Your task to perform on an android device: Add dell xps to the cart on target, then select checkout. Image 0: 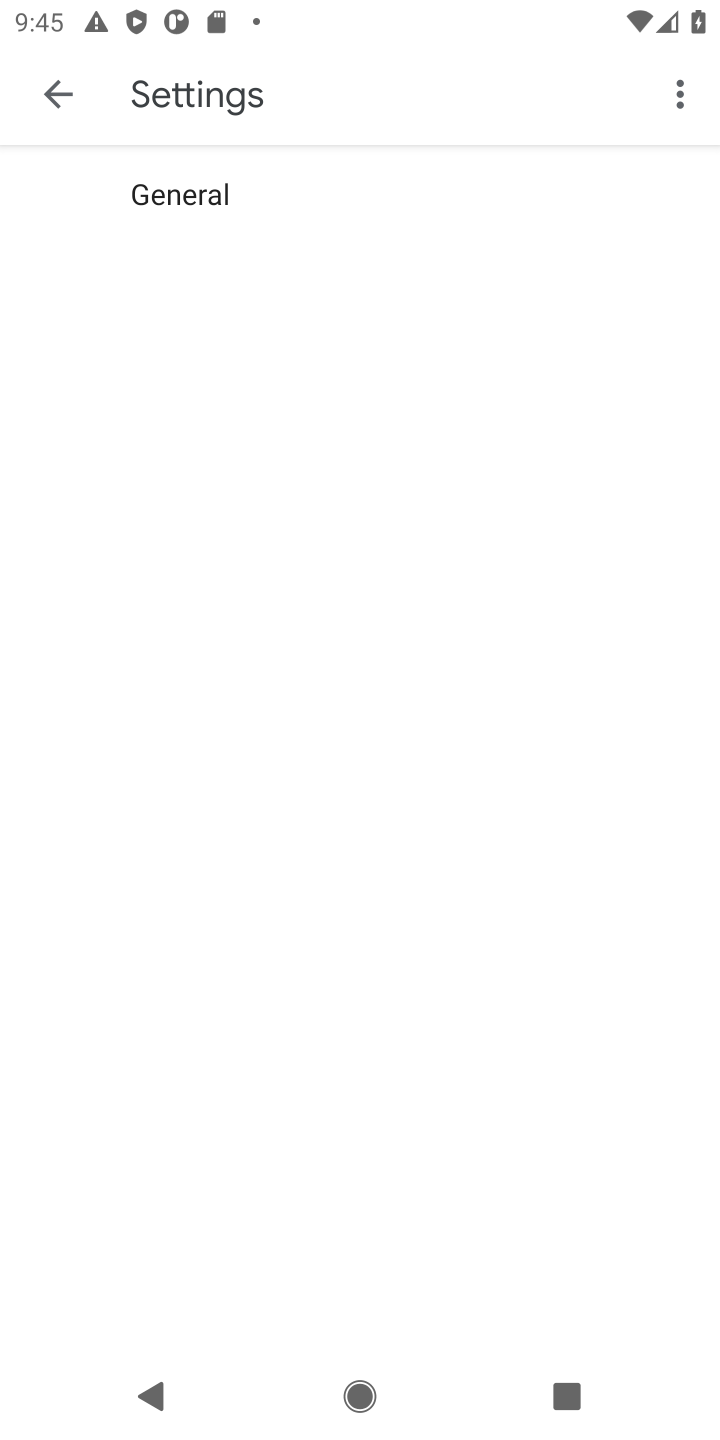
Step 0: press home button
Your task to perform on an android device: Add dell xps to the cart on target, then select checkout. Image 1: 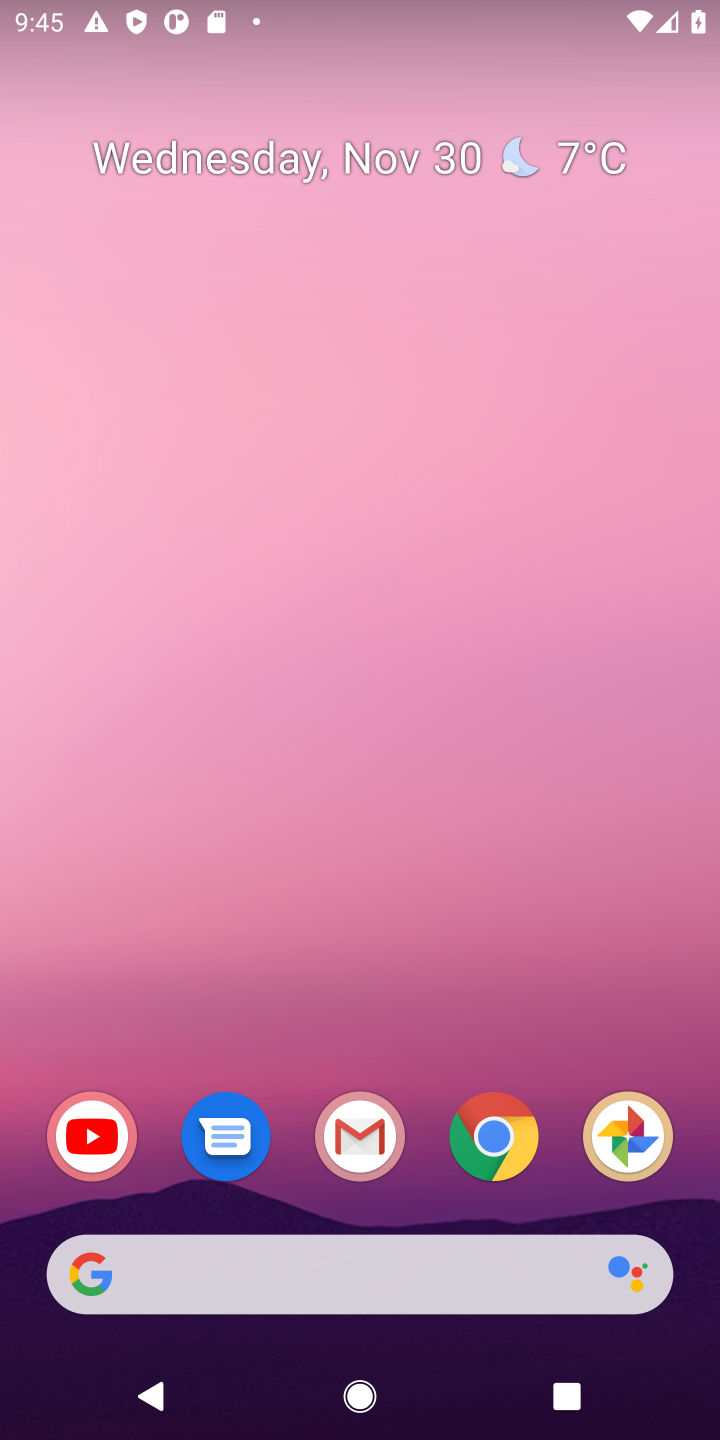
Step 1: click (491, 1129)
Your task to perform on an android device: Add dell xps to the cart on target, then select checkout. Image 2: 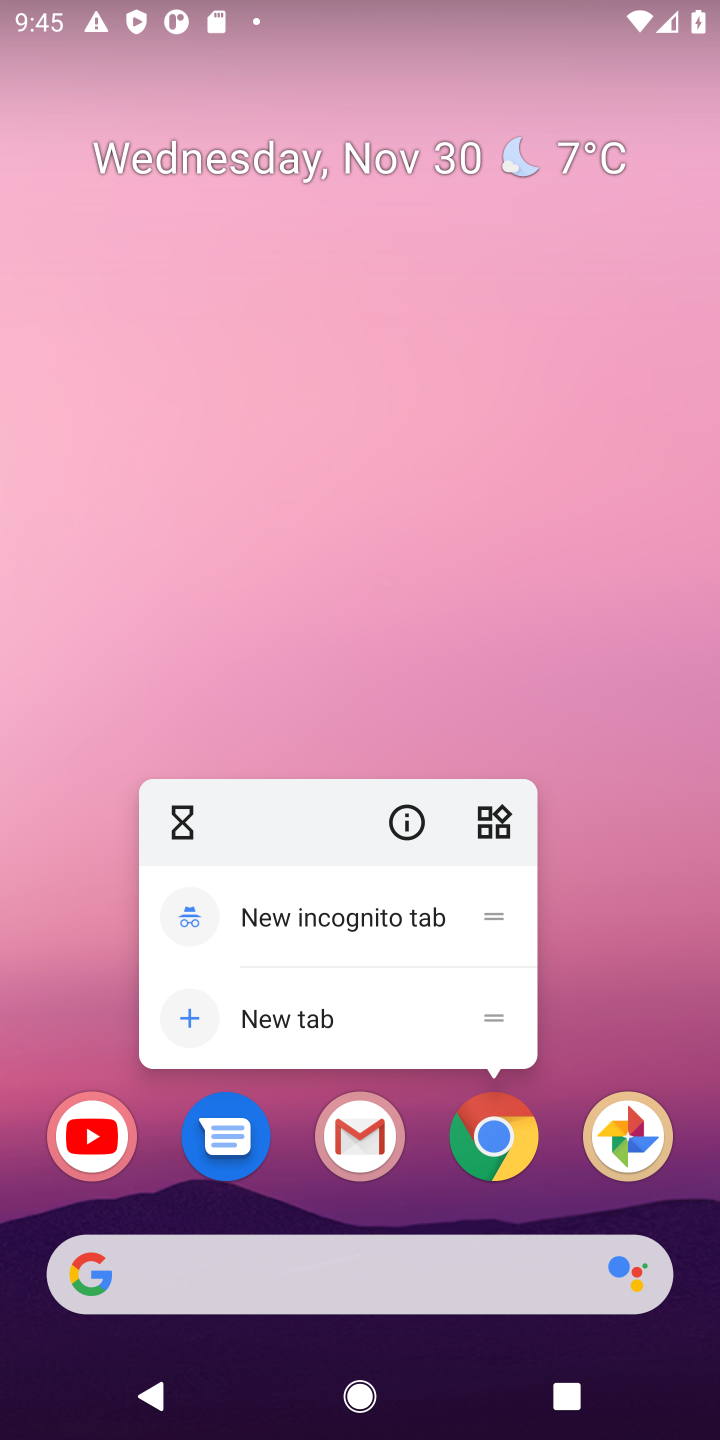
Step 2: click (491, 1129)
Your task to perform on an android device: Add dell xps to the cart on target, then select checkout. Image 3: 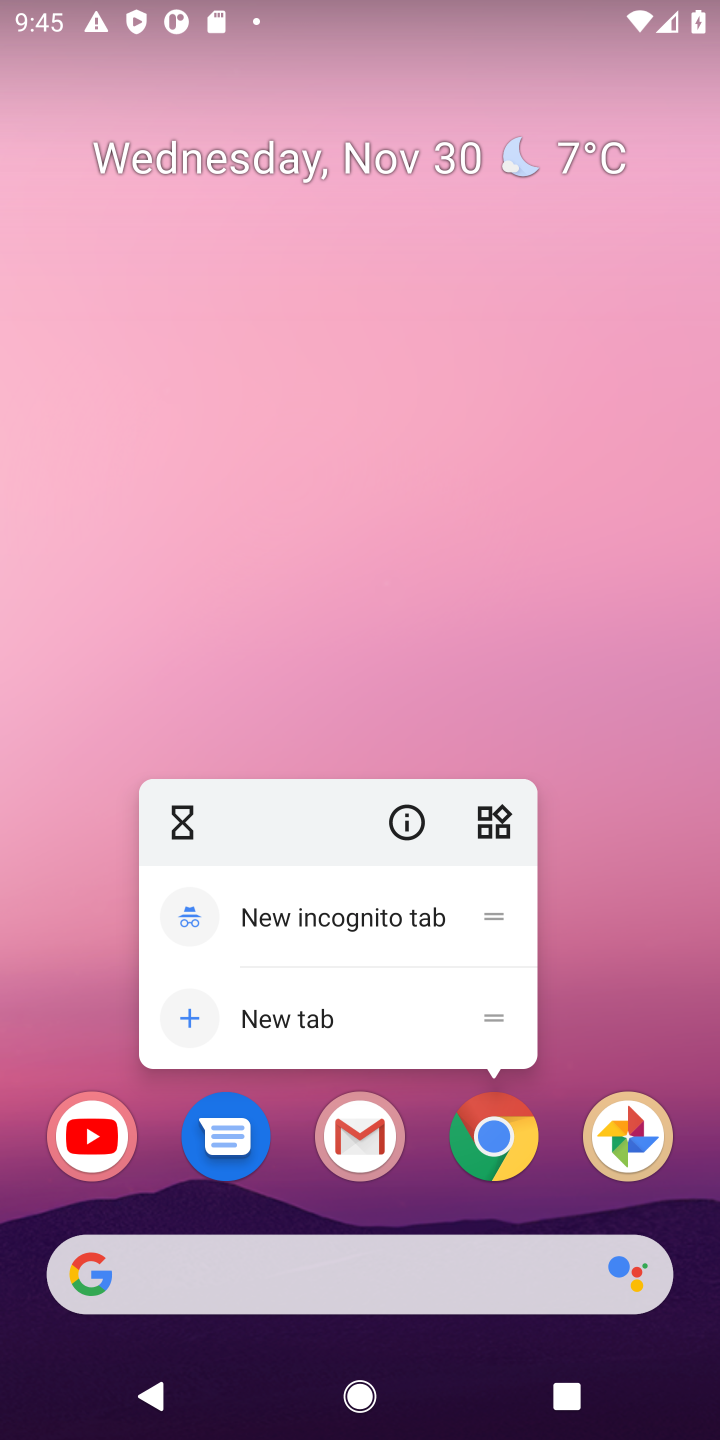
Step 3: click (502, 1163)
Your task to perform on an android device: Add dell xps to the cart on target, then select checkout. Image 4: 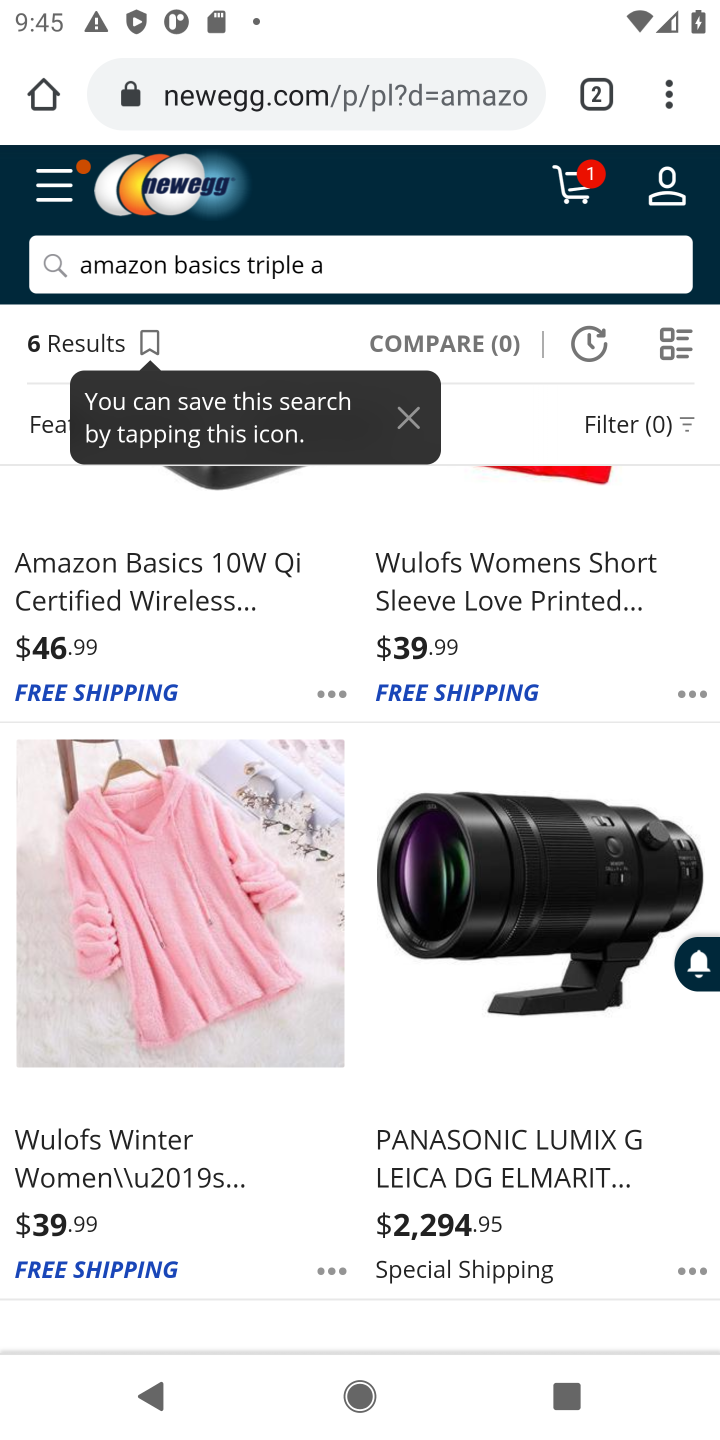
Step 4: click (276, 107)
Your task to perform on an android device: Add dell xps to the cart on target, then select checkout. Image 5: 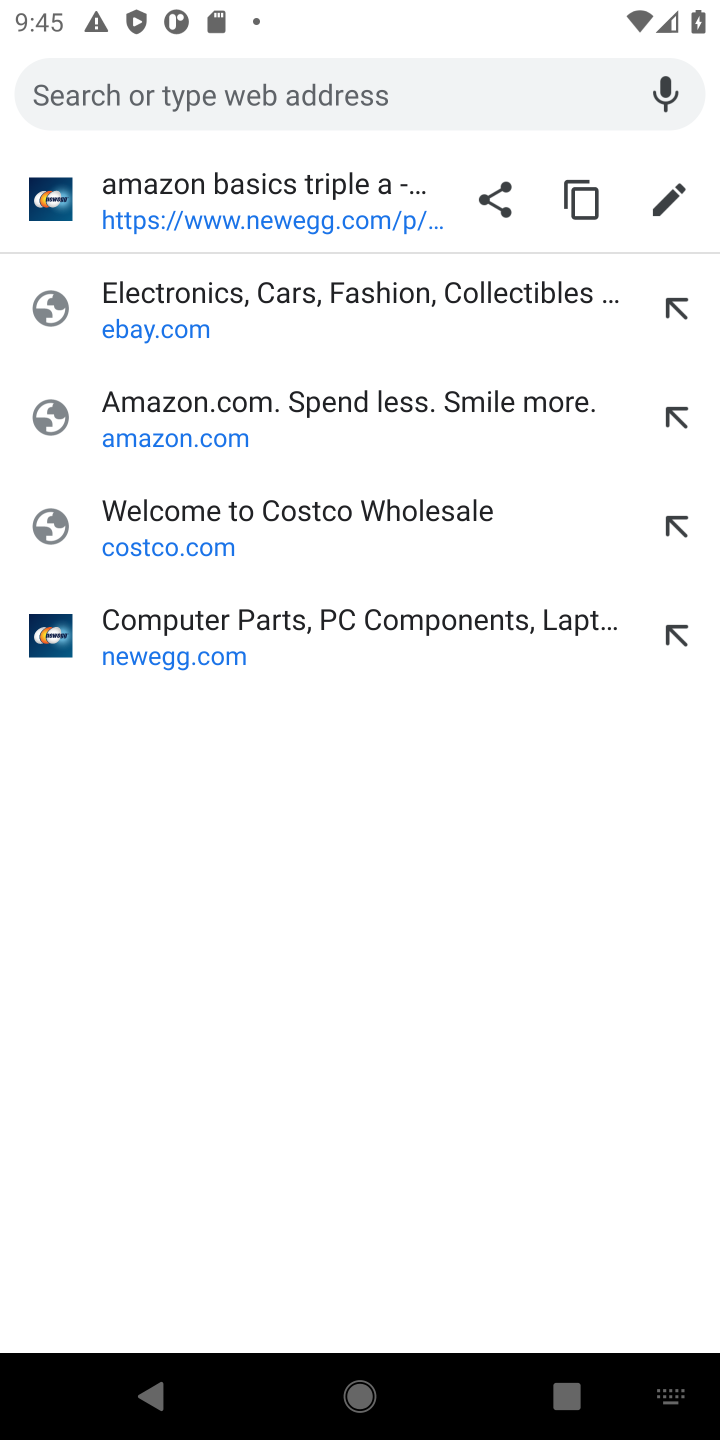
Step 5: type "target.com"
Your task to perform on an android device: Add dell xps to the cart on target, then select checkout. Image 6: 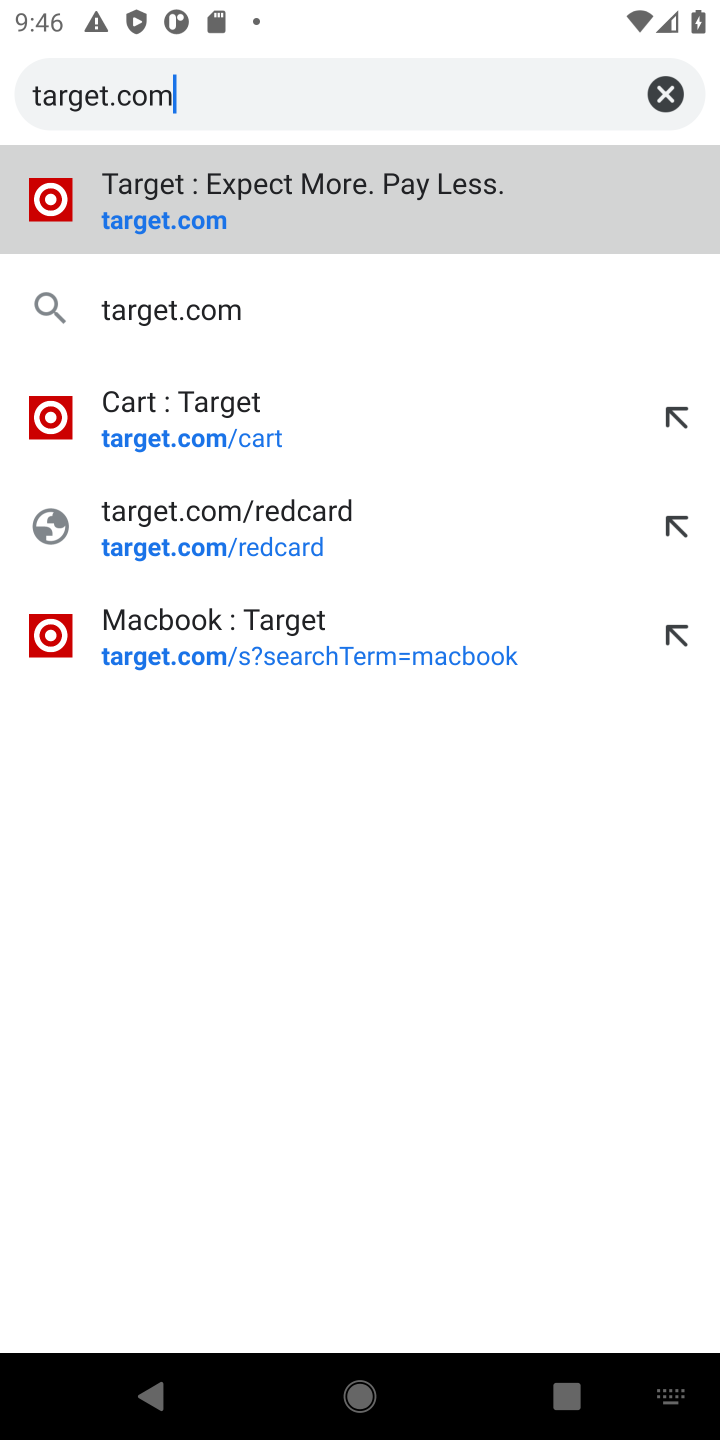
Step 6: click (159, 215)
Your task to perform on an android device: Add dell xps to the cart on target, then select checkout. Image 7: 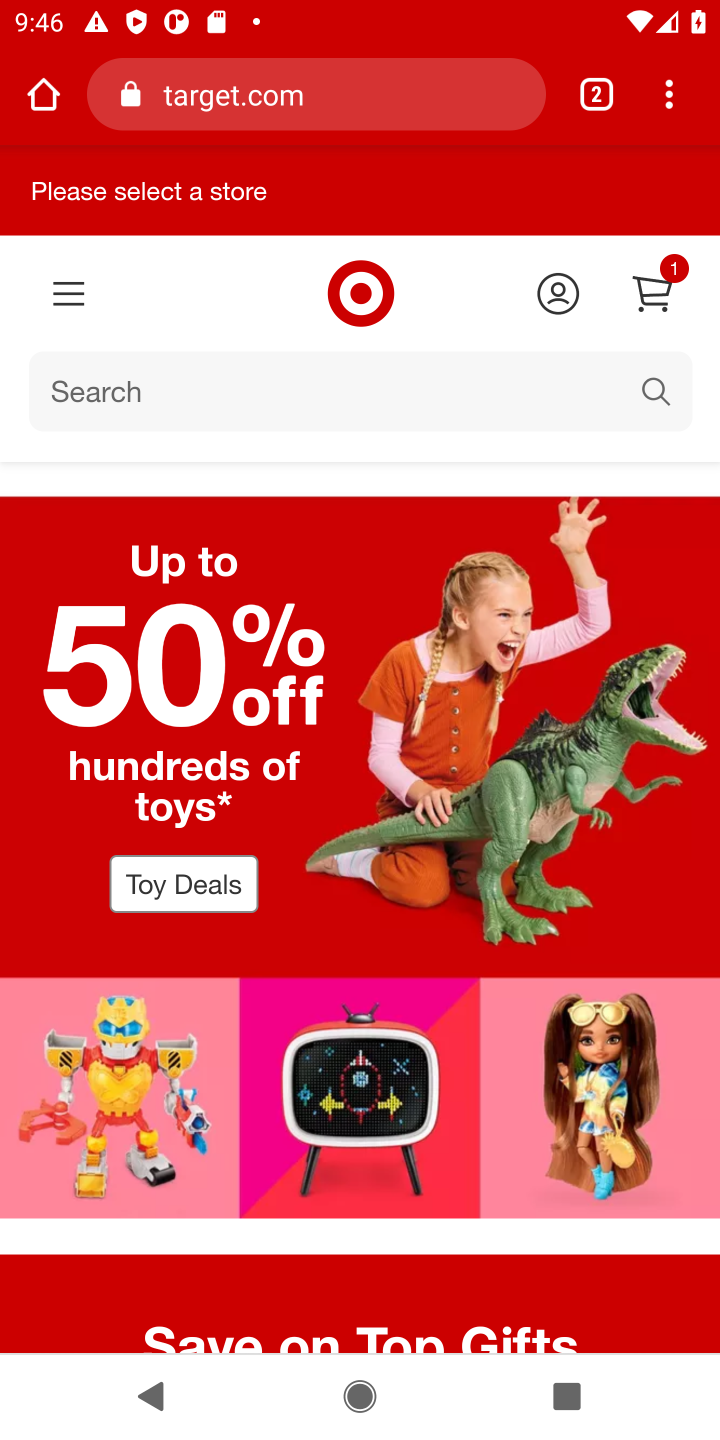
Step 7: click (70, 393)
Your task to perform on an android device: Add dell xps to the cart on target, then select checkout. Image 8: 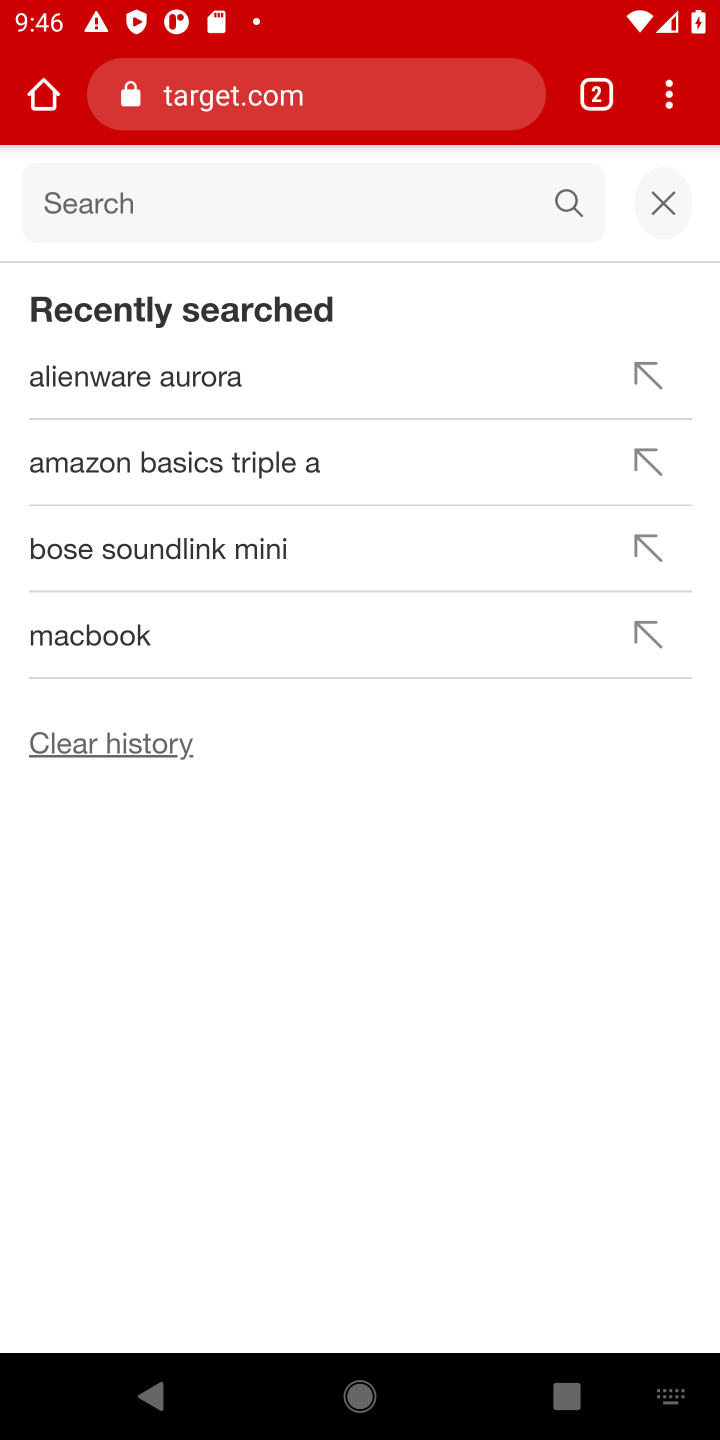
Step 8: type "dell xps "
Your task to perform on an android device: Add dell xps to the cart on target, then select checkout. Image 9: 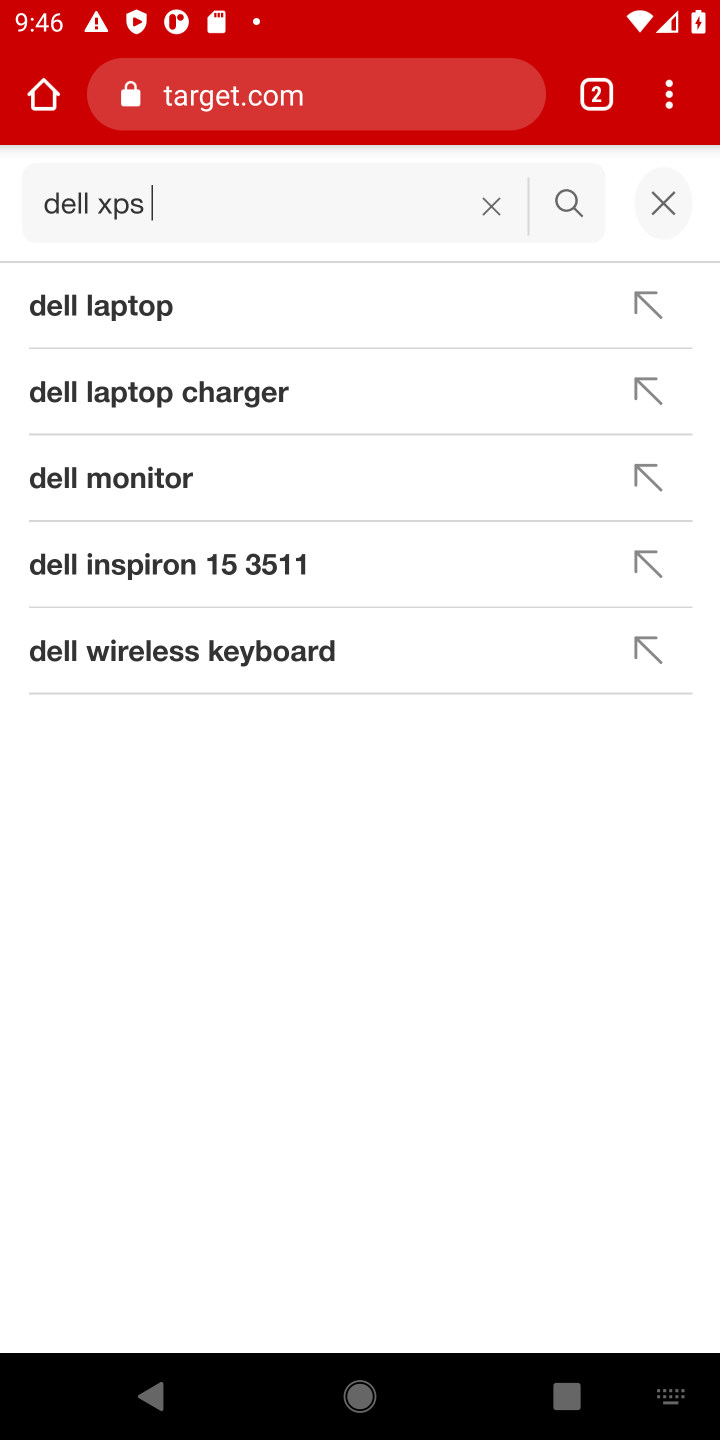
Step 9: click (554, 202)
Your task to perform on an android device: Add dell xps to the cart on target, then select checkout. Image 10: 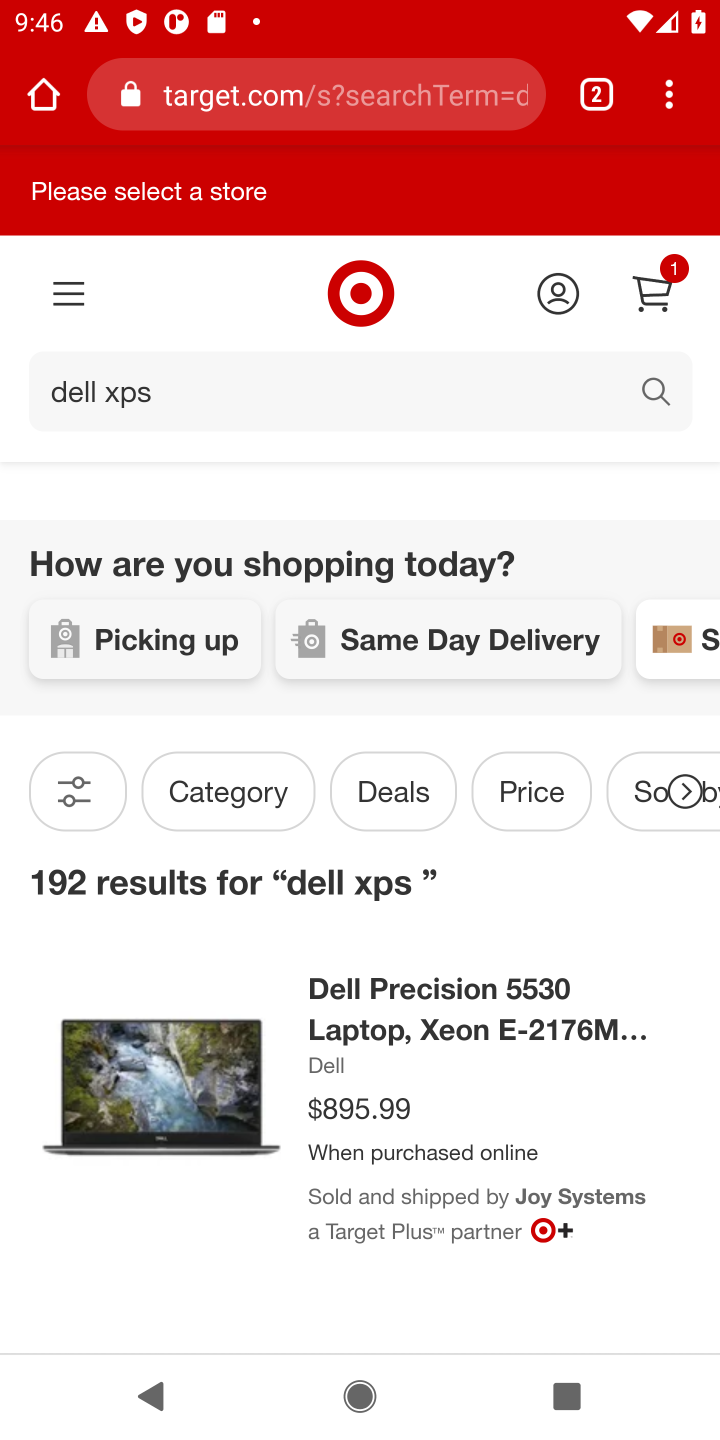
Step 10: task complete